Your task to perform on an android device: Turn on the flashlight Image 0: 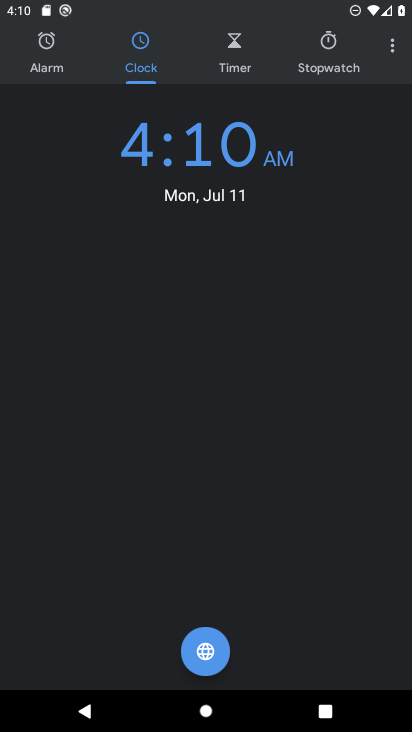
Step 0: drag from (236, 1) to (203, 672)
Your task to perform on an android device: Turn on the flashlight Image 1: 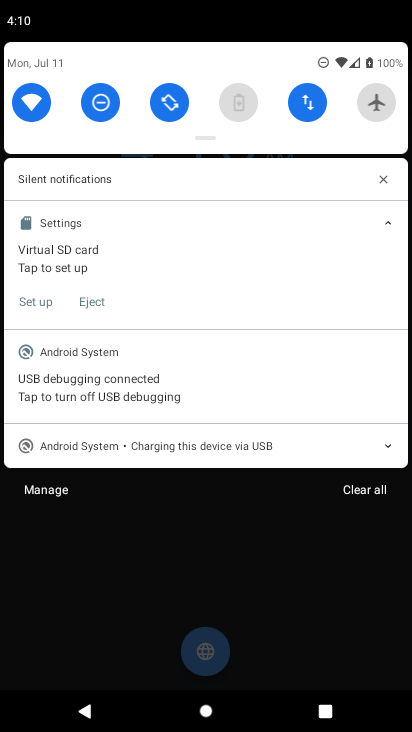
Step 1: task complete